Your task to perform on an android device: Go to network settings Image 0: 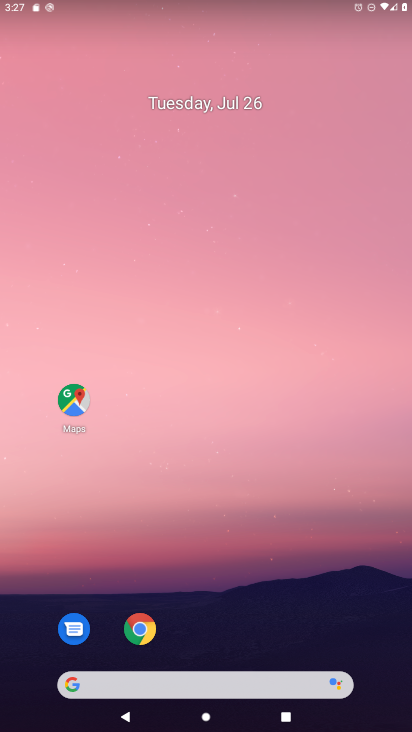
Step 0: drag from (192, 570) to (185, 197)
Your task to perform on an android device: Go to network settings Image 1: 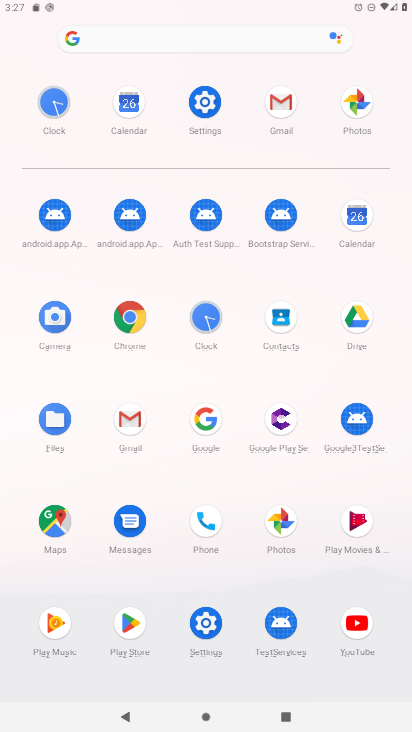
Step 1: click (210, 115)
Your task to perform on an android device: Go to network settings Image 2: 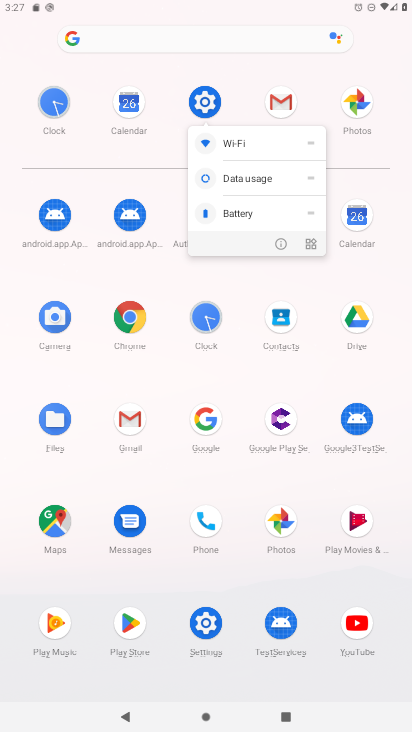
Step 2: click (210, 115)
Your task to perform on an android device: Go to network settings Image 3: 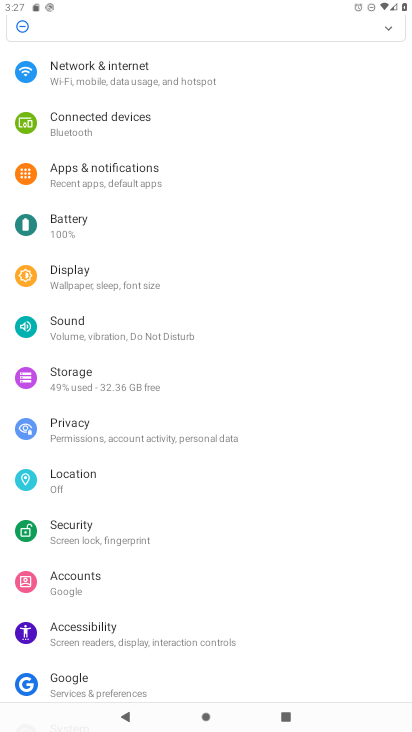
Step 3: click (121, 92)
Your task to perform on an android device: Go to network settings Image 4: 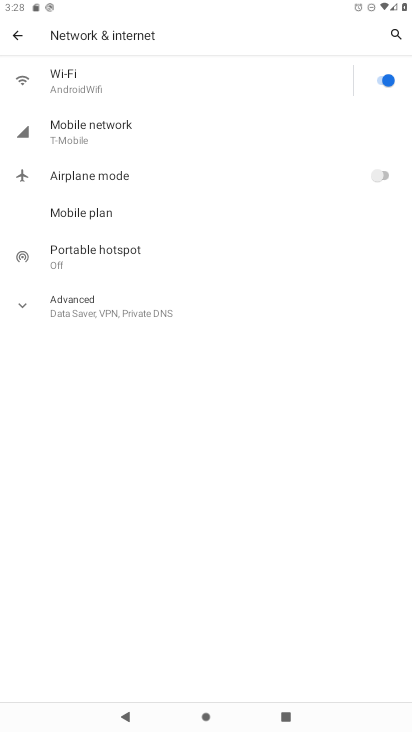
Step 4: task complete